Your task to perform on an android device: Go to internet settings Image 0: 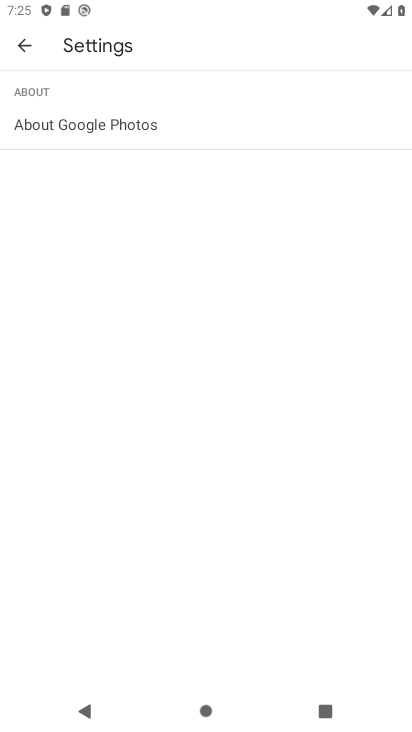
Step 0: press home button
Your task to perform on an android device: Go to internet settings Image 1: 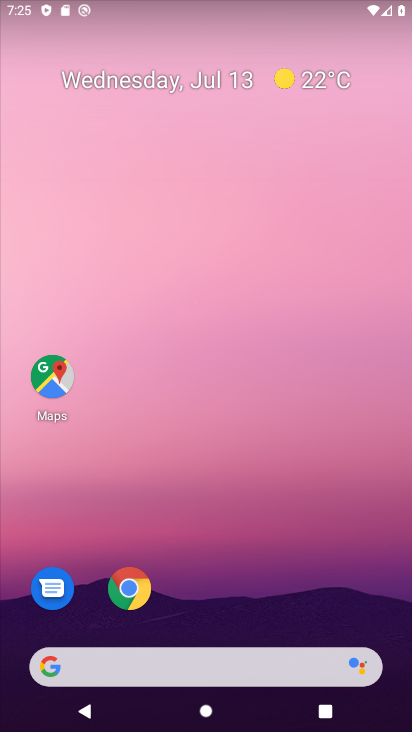
Step 1: drag from (259, 562) to (291, 137)
Your task to perform on an android device: Go to internet settings Image 2: 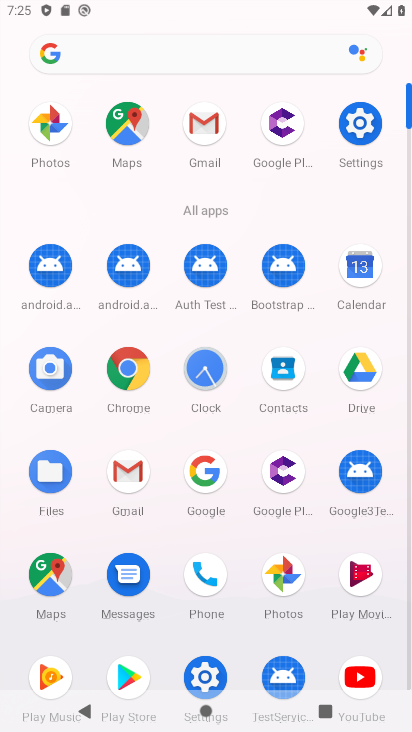
Step 2: click (352, 115)
Your task to perform on an android device: Go to internet settings Image 3: 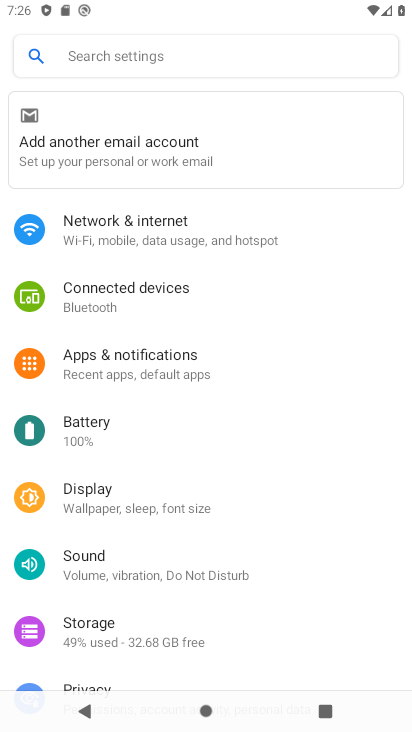
Step 3: click (117, 223)
Your task to perform on an android device: Go to internet settings Image 4: 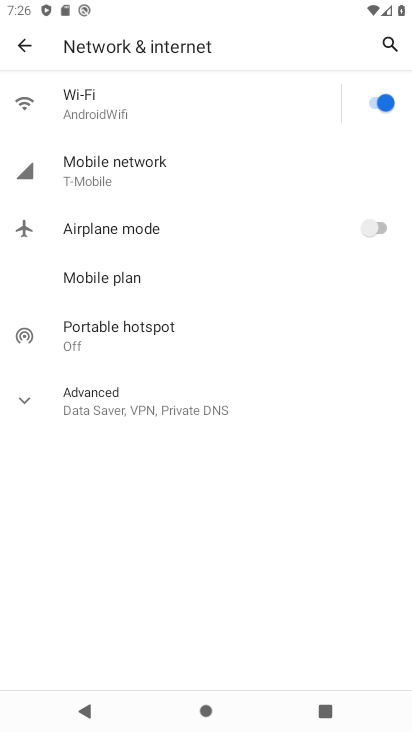
Step 4: task complete